Your task to perform on an android device: change timer sound Image 0: 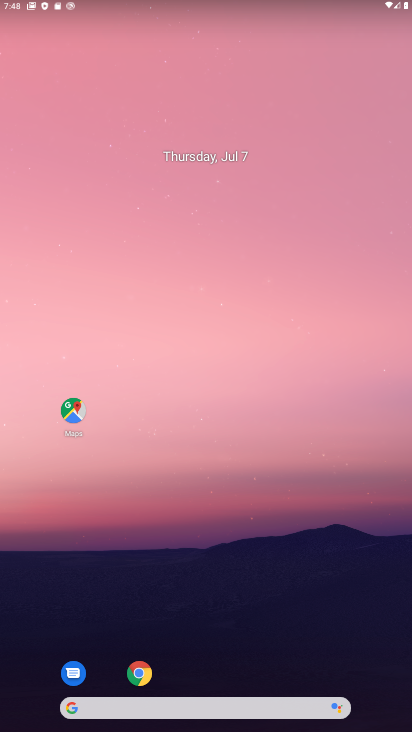
Step 0: drag from (190, 681) to (195, 0)
Your task to perform on an android device: change timer sound Image 1: 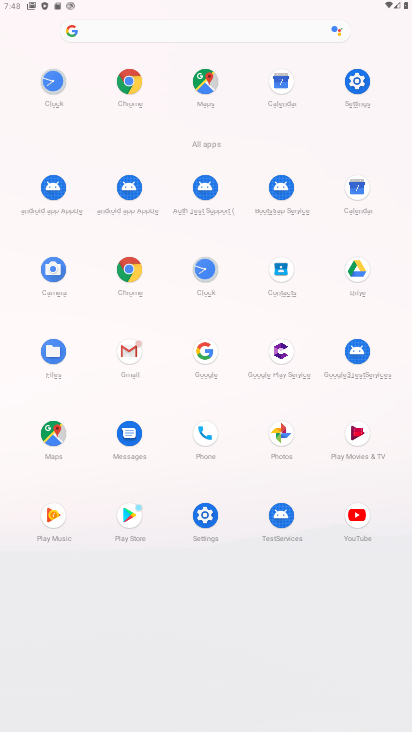
Step 1: click (198, 276)
Your task to perform on an android device: change timer sound Image 2: 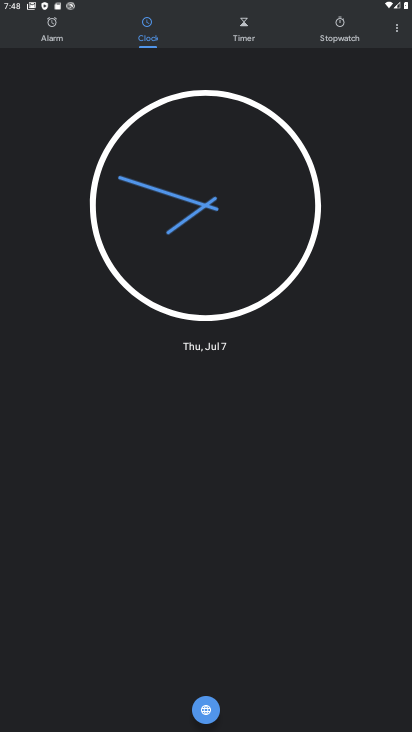
Step 2: click (395, 29)
Your task to perform on an android device: change timer sound Image 3: 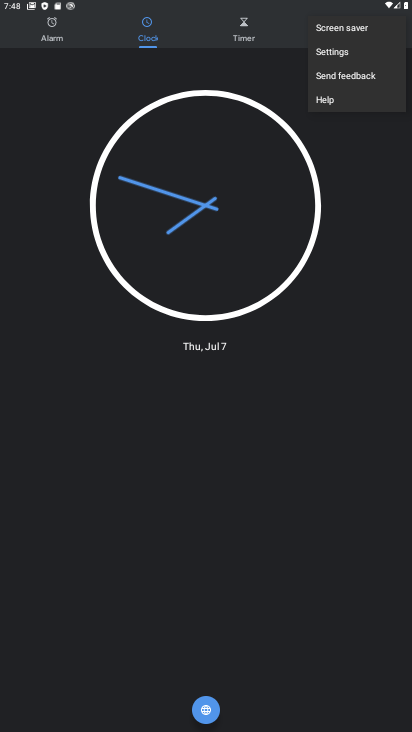
Step 3: click (341, 57)
Your task to perform on an android device: change timer sound Image 4: 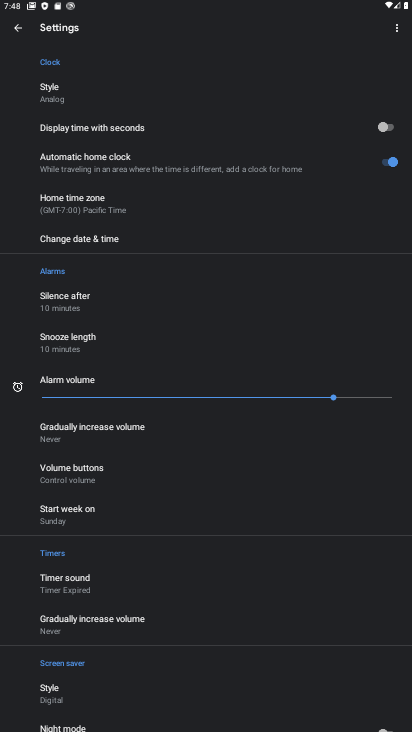
Step 4: click (42, 583)
Your task to perform on an android device: change timer sound Image 5: 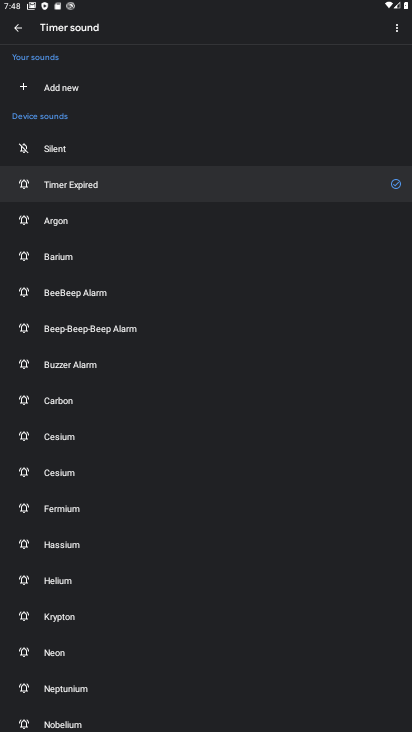
Step 5: click (61, 227)
Your task to perform on an android device: change timer sound Image 6: 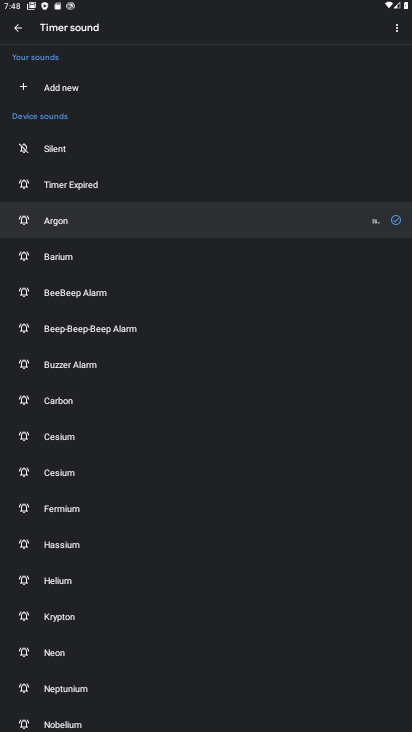
Step 6: task complete